Your task to perform on an android device: turn on the 12-hour format for clock Image 0: 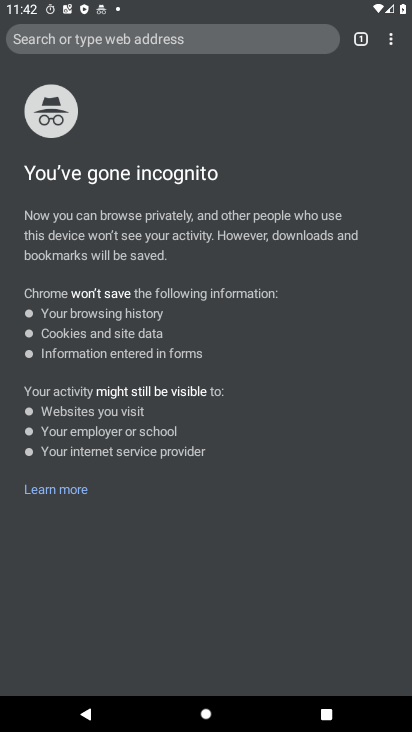
Step 0: press home button
Your task to perform on an android device: turn on the 12-hour format for clock Image 1: 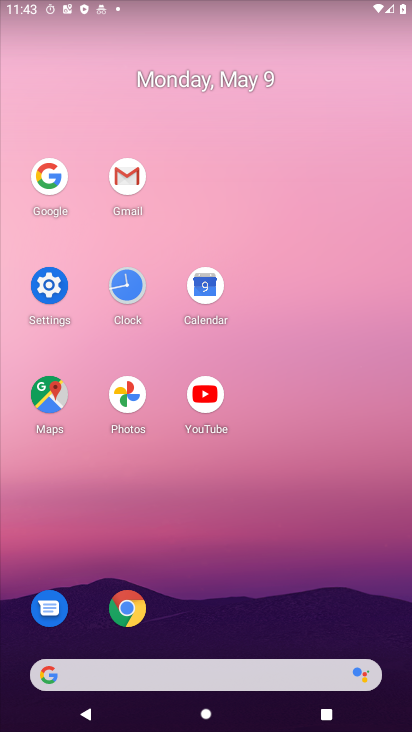
Step 1: click (117, 286)
Your task to perform on an android device: turn on the 12-hour format for clock Image 2: 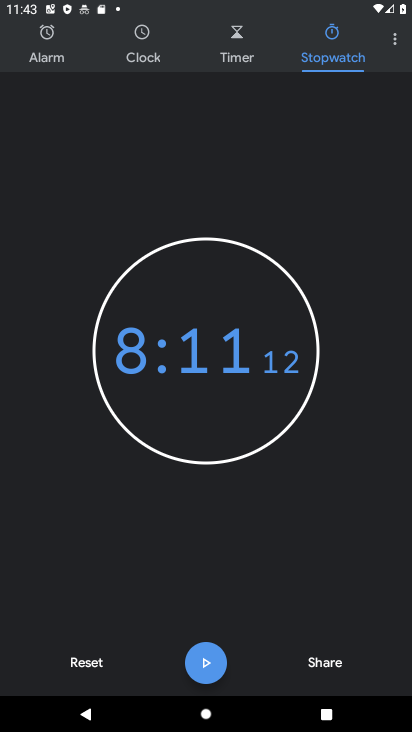
Step 2: click (396, 47)
Your task to perform on an android device: turn on the 12-hour format for clock Image 3: 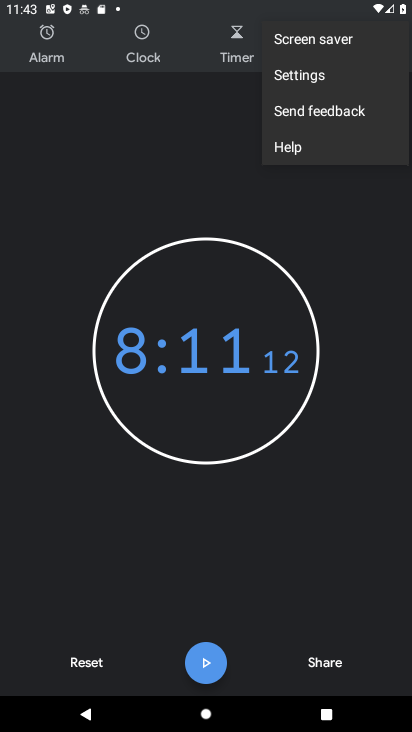
Step 3: click (325, 82)
Your task to perform on an android device: turn on the 12-hour format for clock Image 4: 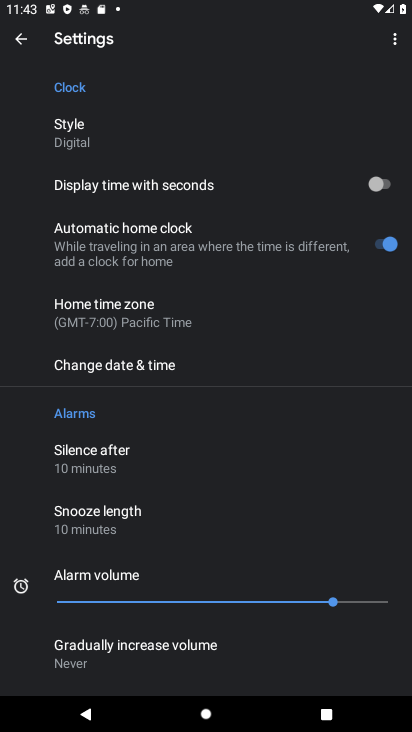
Step 4: drag from (173, 573) to (196, 200)
Your task to perform on an android device: turn on the 12-hour format for clock Image 5: 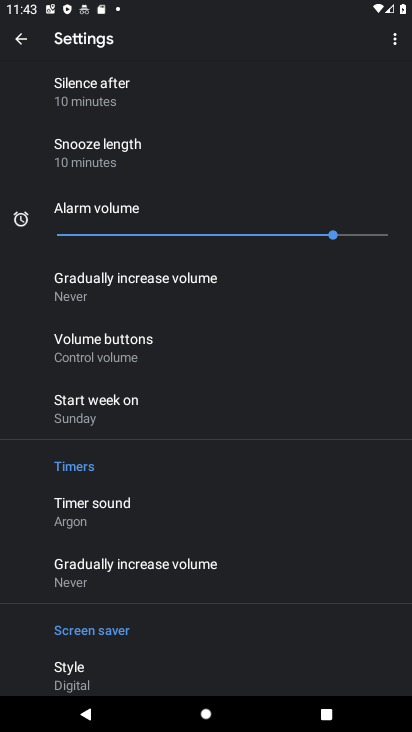
Step 5: drag from (185, 649) to (199, 296)
Your task to perform on an android device: turn on the 12-hour format for clock Image 6: 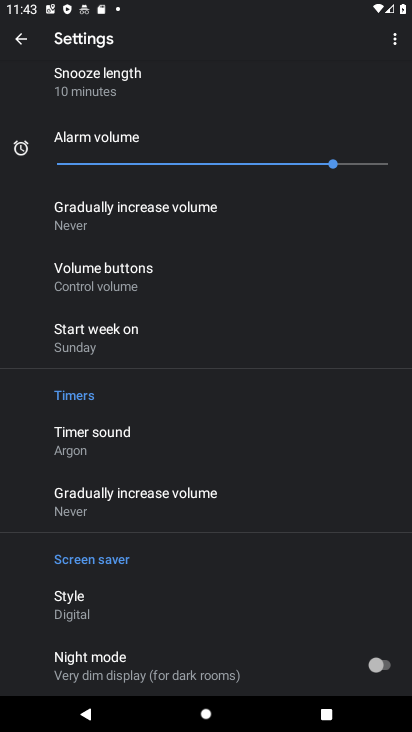
Step 6: drag from (183, 614) to (208, 264)
Your task to perform on an android device: turn on the 12-hour format for clock Image 7: 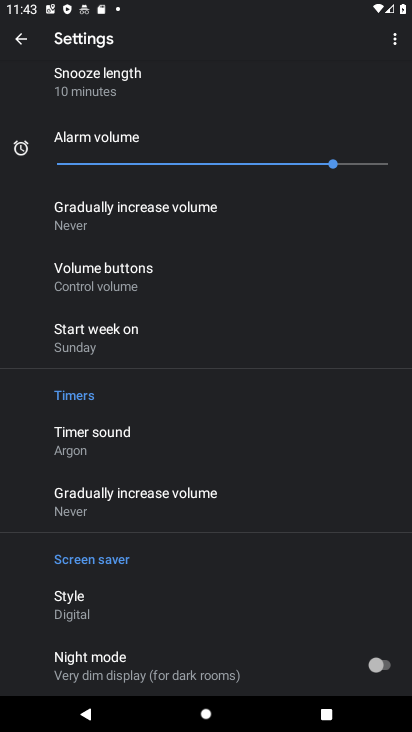
Step 7: drag from (257, 227) to (223, 492)
Your task to perform on an android device: turn on the 12-hour format for clock Image 8: 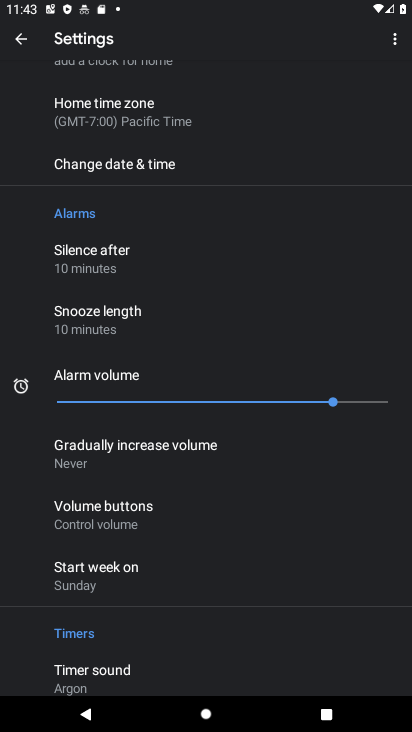
Step 8: click (148, 161)
Your task to perform on an android device: turn on the 12-hour format for clock Image 9: 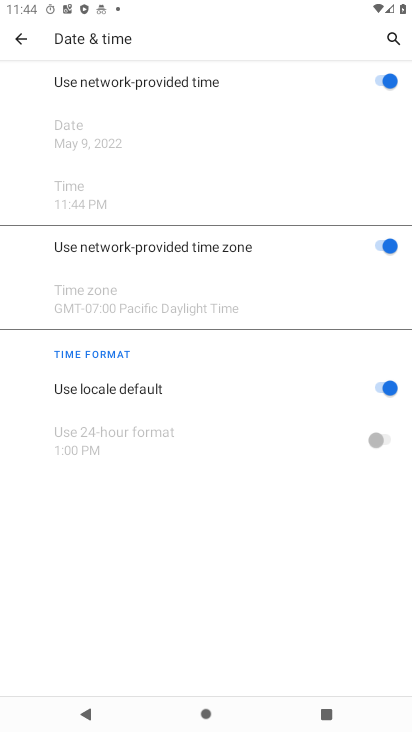
Step 9: task complete